Your task to perform on an android device: change timer sound Image 0: 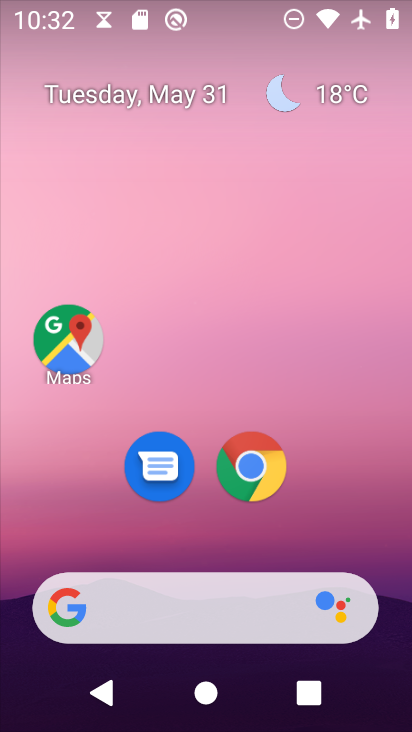
Step 0: drag from (396, 586) to (292, 31)
Your task to perform on an android device: change timer sound Image 1: 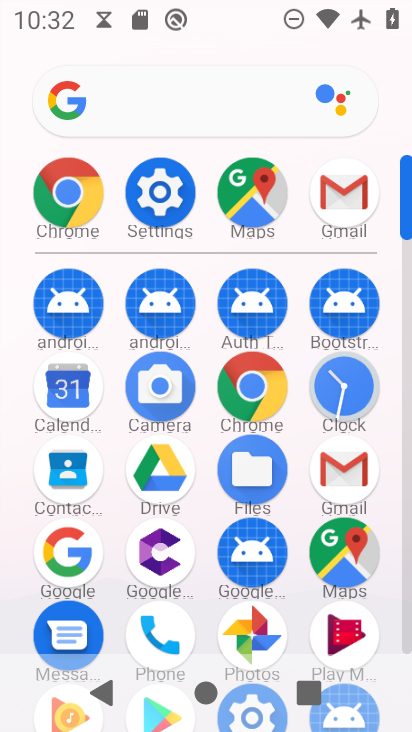
Step 1: drag from (14, 592) to (23, 257)
Your task to perform on an android device: change timer sound Image 2: 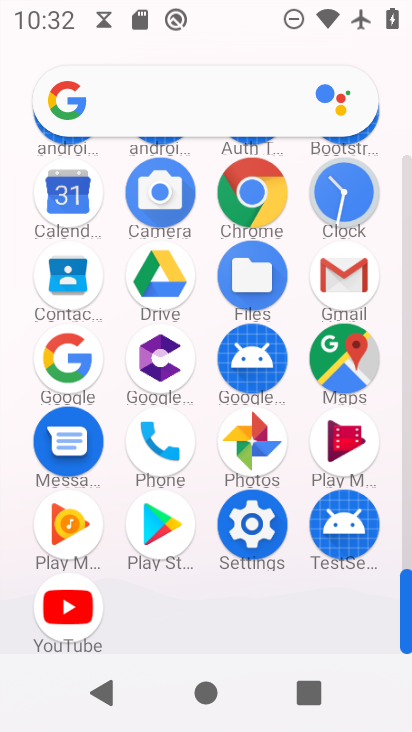
Step 2: click (341, 191)
Your task to perform on an android device: change timer sound Image 3: 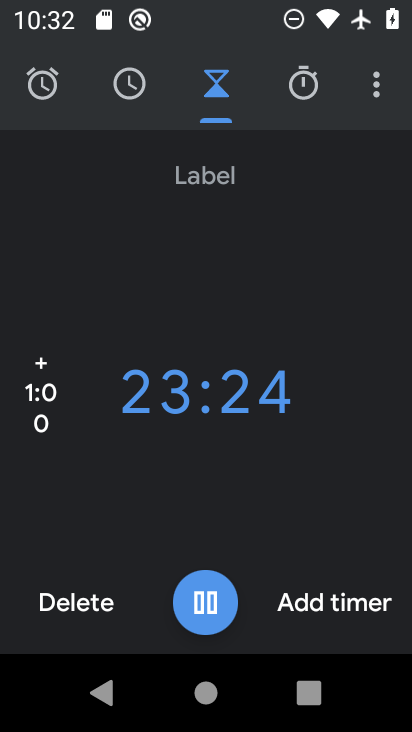
Step 3: drag from (375, 90) to (281, 164)
Your task to perform on an android device: change timer sound Image 4: 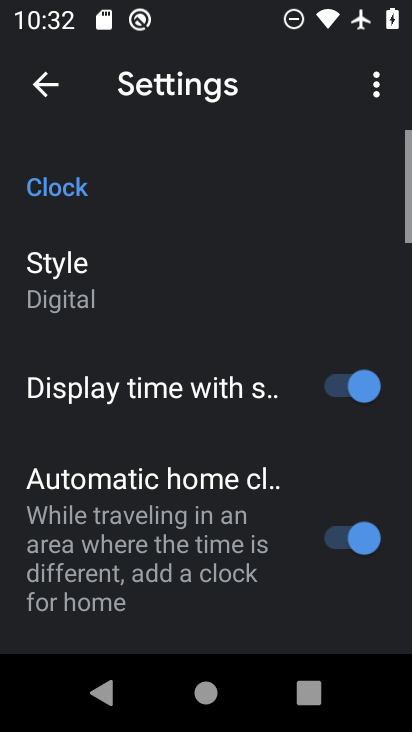
Step 4: drag from (200, 574) to (191, 152)
Your task to perform on an android device: change timer sound Image 5: 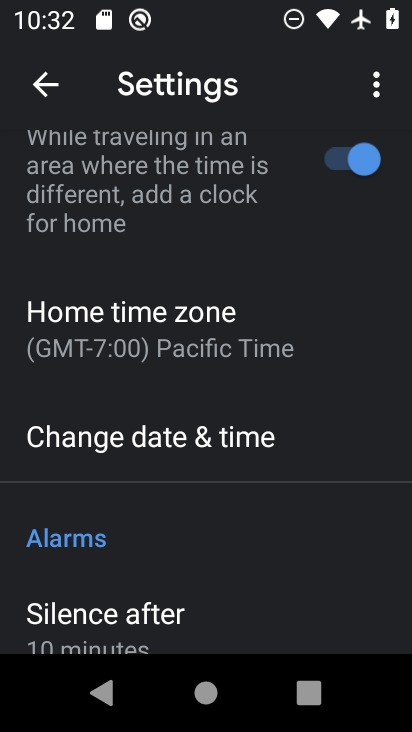
Step 5: drag from (174, 539) to (174, 160)
Your task to perform on an android device: change timer sound Image 6: 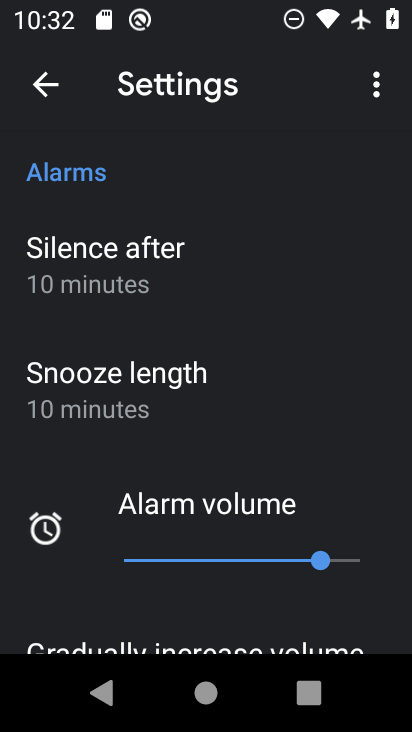
Step 6: drag from (173, 336) to (202, 111)
Your task to perform on an android device: change timer sound Image 7: 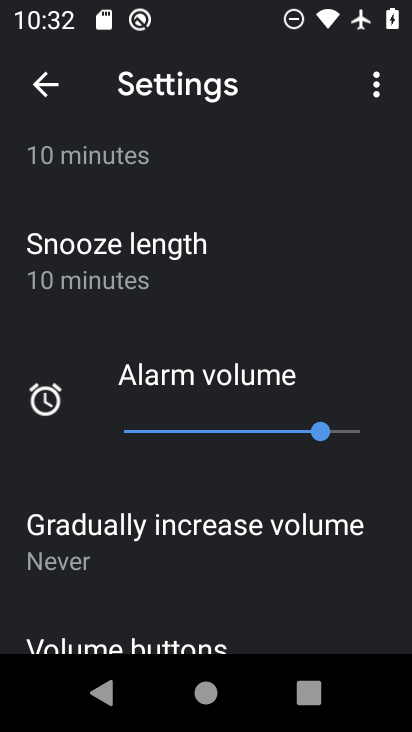
Step 7: drag from (178, 519) to (218, 189)
Your task to perform on an android device: change timer sound Image 8: 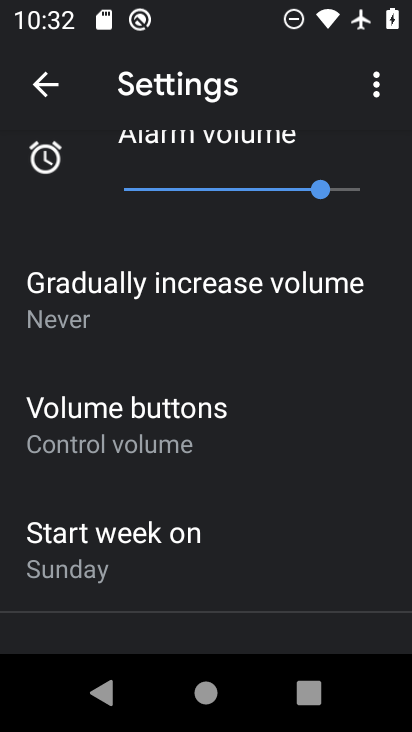
Step 8: drag from (171, 530) to (198, 152)
Your task to perform on an android device: change timer sound Image 9: 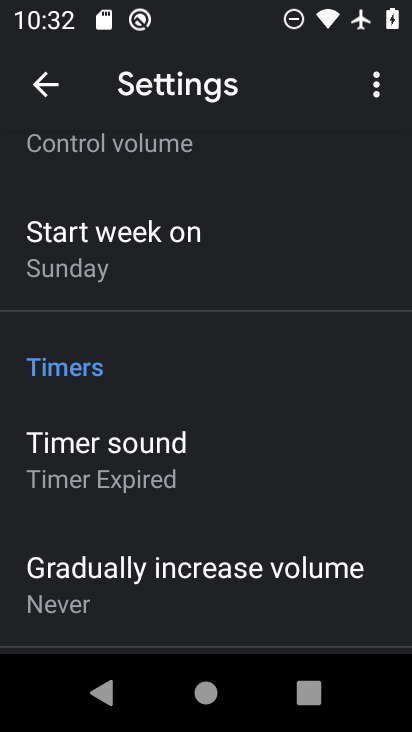
Step 9: click (138, 471)
Your task to perform on an android device: change timer sound Image 10: 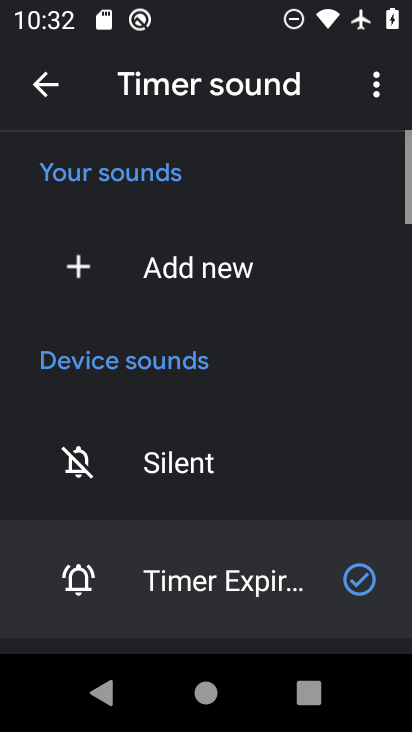
Step 10: drag from (209, 526) to (257, 234)
Your task to perform on an android device: change timer sound Image 11: 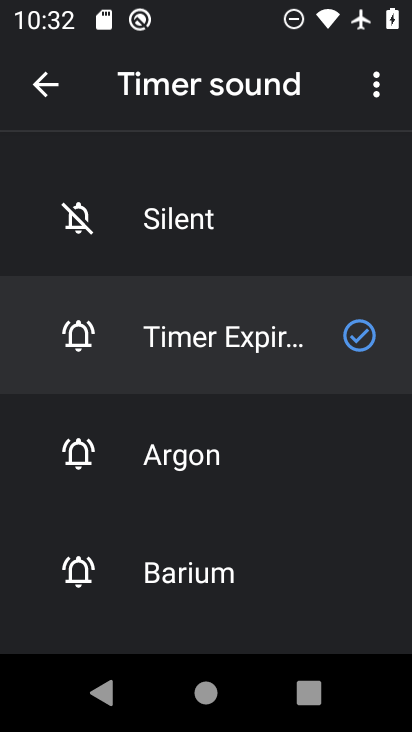
Step 11: click (212, 567)
Your task to perform on an android device: change timer sound Image 12: 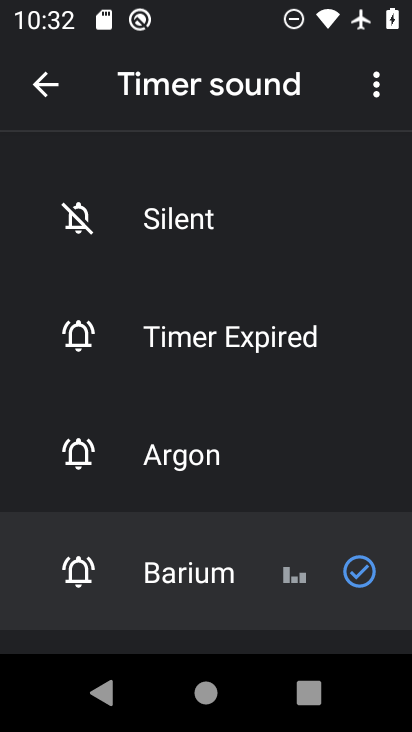
Step 12: task complete